Your task to perform on an android device: read, delete, or share a saved page in the chrome app Image 0: 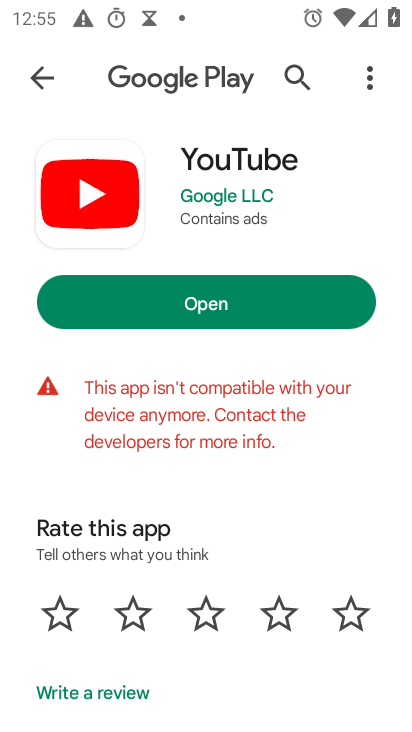
Step 0: press home button
Your task to perform on an android device: read, delete, or share a saved page in the chrome app Image 1: 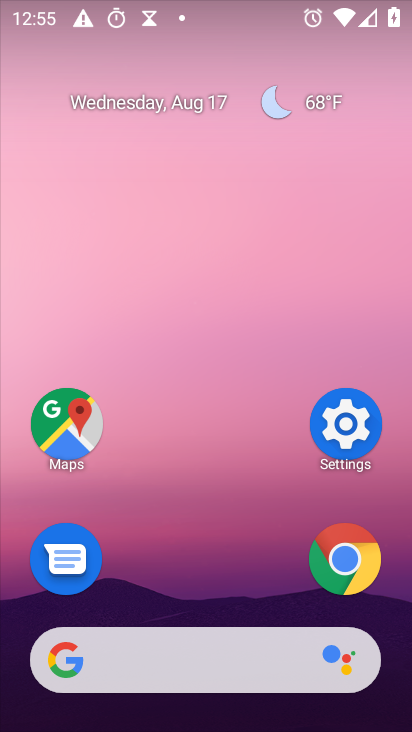
Step 1: click (354, 567)
Your task to perform on an android device: read, delete, or share a saved page in the chrome app Image 2: 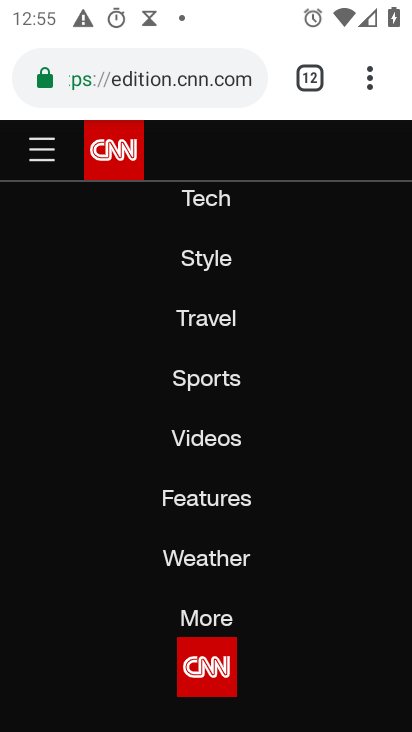
Step 2: drag from (369, 73) to (111, 505)
Your task to perform on an android device: read, delete, or share a saved page in the chrome app Image 3: 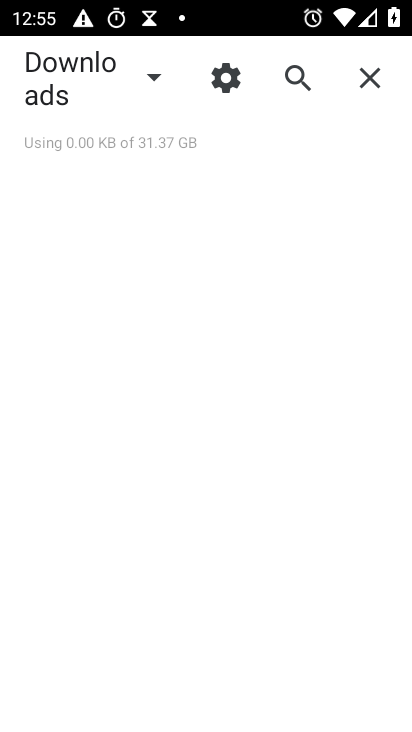
Step 3: click (149, 71)
Your task to perform on an android device: read, delete, or share a saved page in the chrome app Image 4: 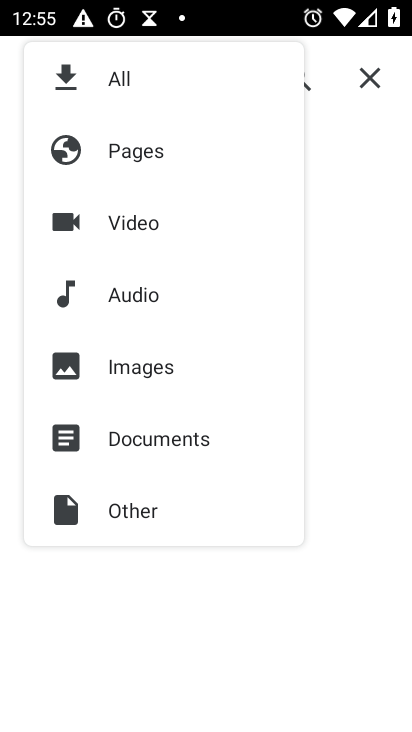
Step 4: click (137, 155)
Your task to perform on an android device: read, delete, or share a saved page in the chrome app Image 5: 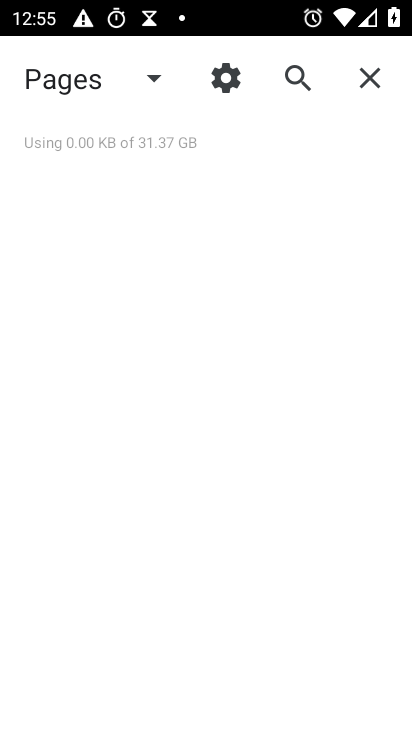
Step 5: task complete